Your task to perform on an android device: choose inbox layout in the gmail app Image 0: 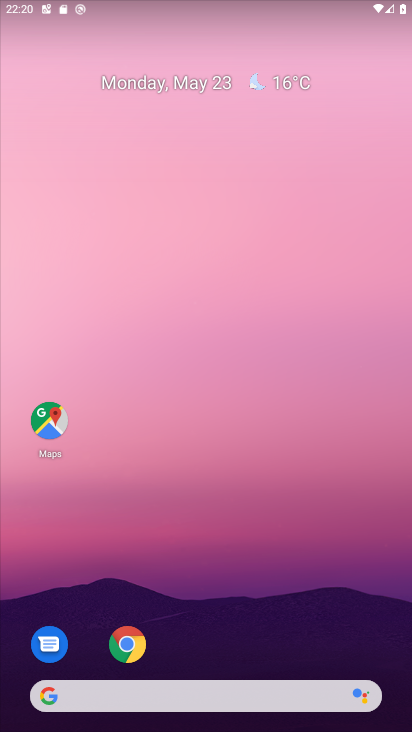
Step 0: press home button
Your task to perform on an android device: choose inbox layout in the gmail app Image 1: 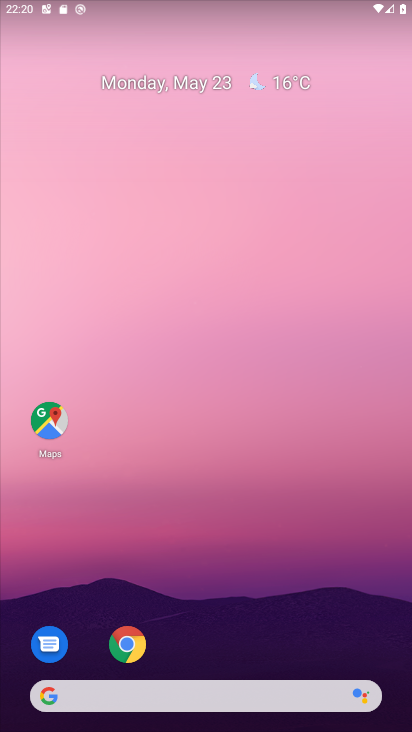
Step 1: drag from (203, 662) to (212, 0)
Your task to perform on an android device: choose inbox layout in the gmail app Image 2: 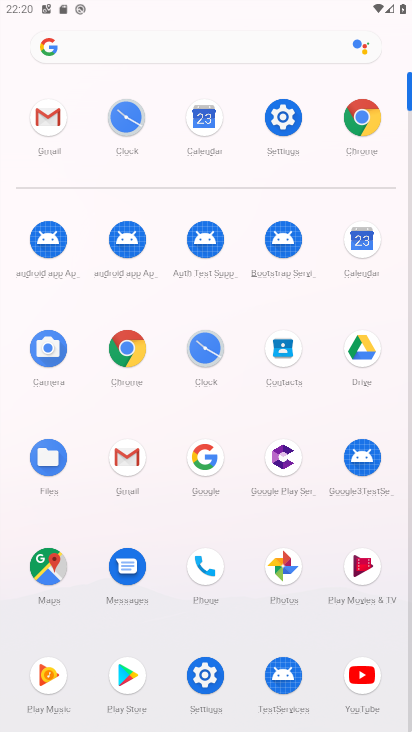
Step 2: click (45, 109)
Your task to perform on an android device: choose inbox layout in the gmail app Image 3: 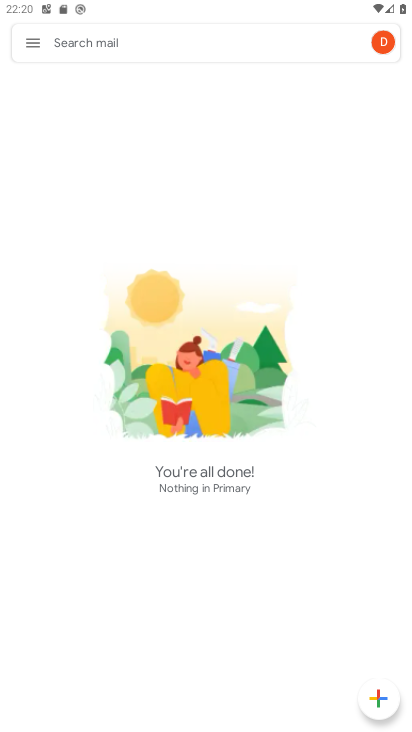
Step 3: click (25, 43)
Your task to perform on an android device: choose inbox layout in the gmail app Image 4: 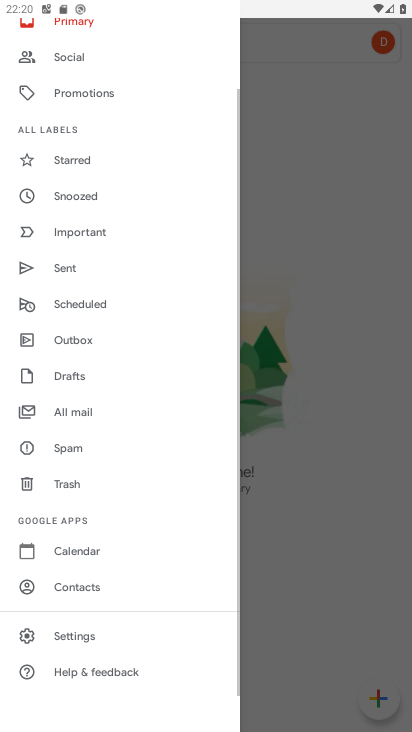
Step 4: click (86, 635)
Your task to perform on an android device: choose inbox layout in the gmail app Image 5: 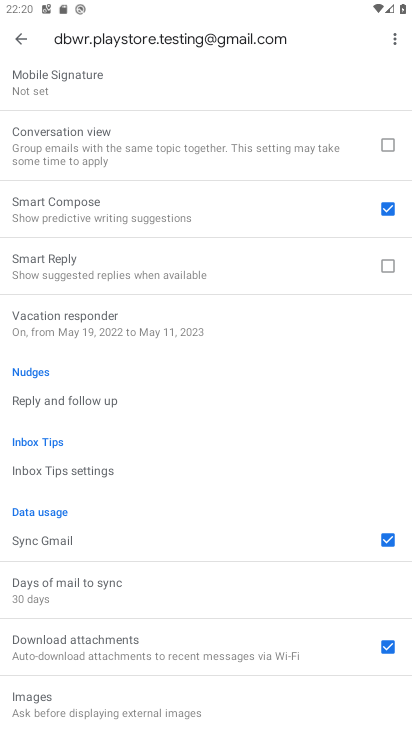
Step 5: drag from (166, 134) to (160, 720)
Your task to perform on an android device: choose inbox layout in the gmail app Image 6: 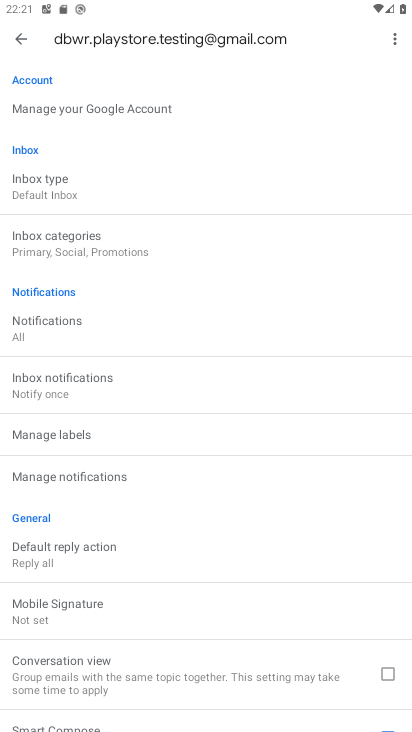
Step 6: click (76, 191)
Your task to perform on an android device: choose inbox layout in the gmail app Image 7: 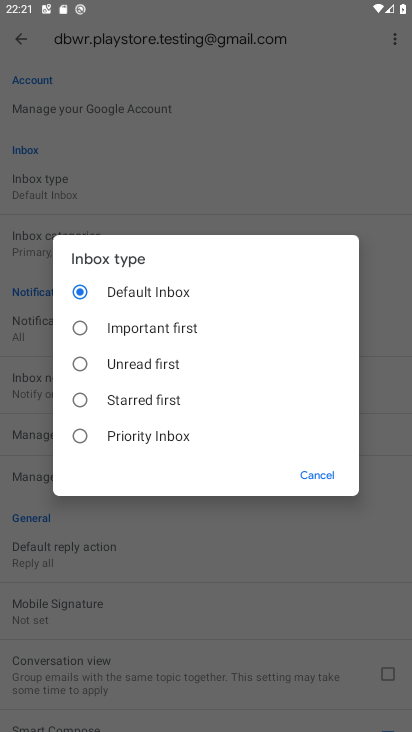
Step 7: click (78, 435)
Your task to perform on an android device: choose inbox layout in the gmail app Image 8: 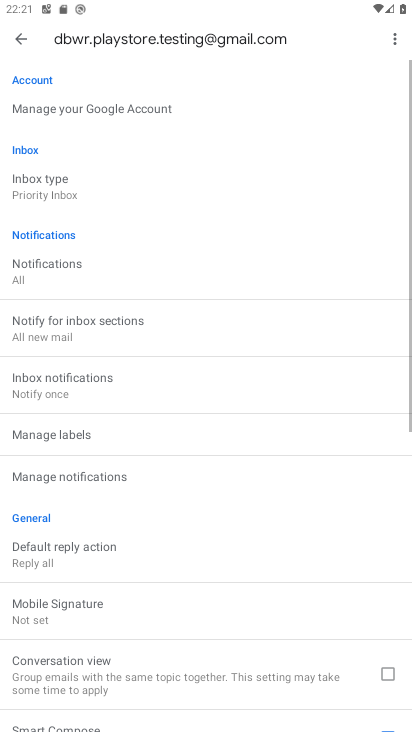
Step 8: task complete